Your task to perform on an android device: Is it going to rain tomorrow? Image 0: 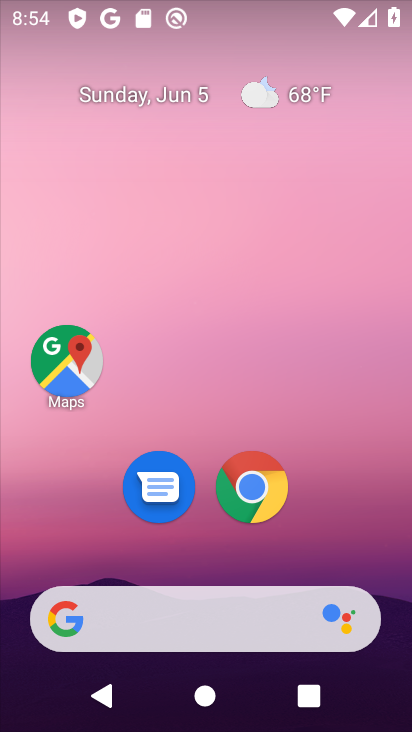
Step 0: click (270, 101)
Your task to perform on an android device: Is it going to rain tomorrow? Image 1: 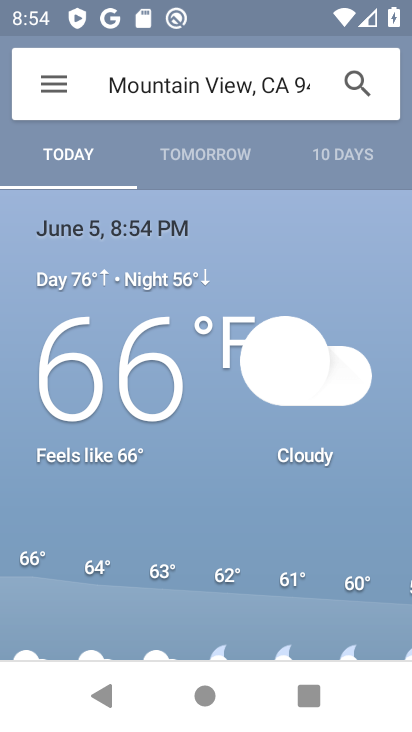
Step 1: click (213, 148)
Your task to perform on an android device: Is it going to rain tomorrow? Image 2: 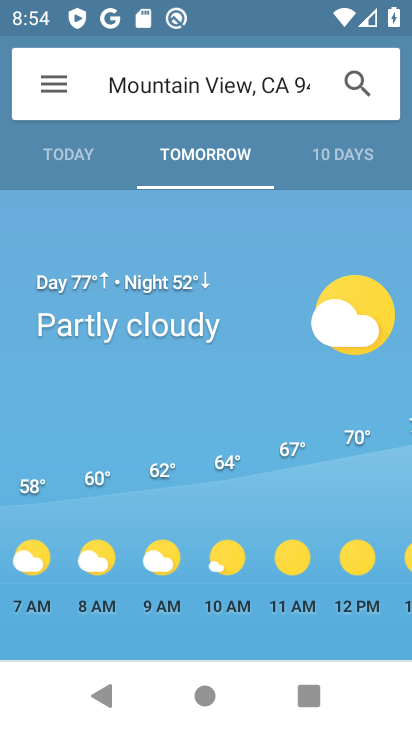
Step 2: task complete